Your task to perform on an android device: Go to wifi settings Image 0: 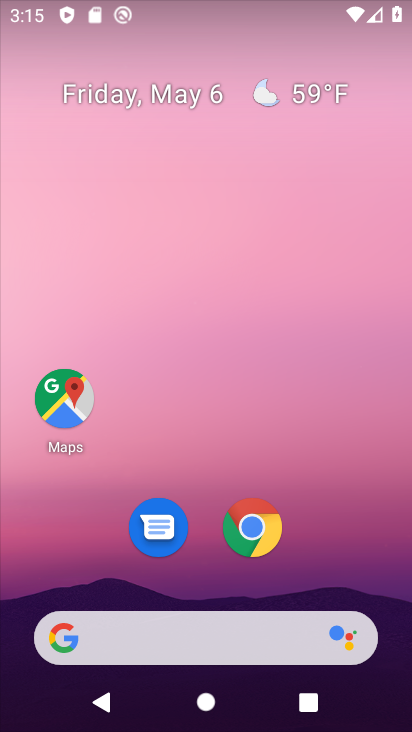
Step 0: drag from (340, 540) to (312, 127)
Your task to perform on an android device: Go to wifi settings Image 1: 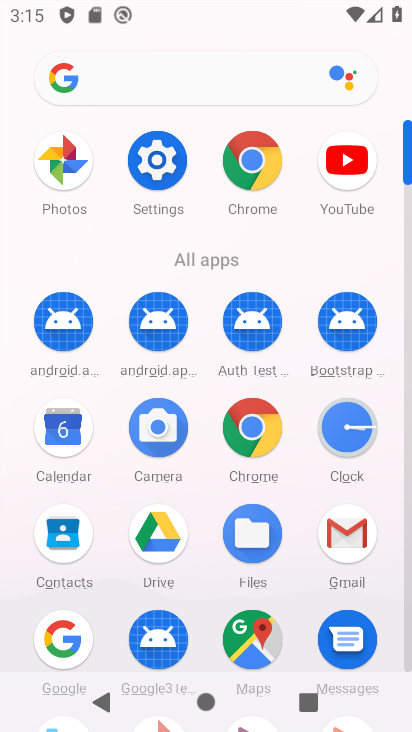
Step 1: click (160, 168)
Your task to perform on an android device: Go to wifi settings Image 2: 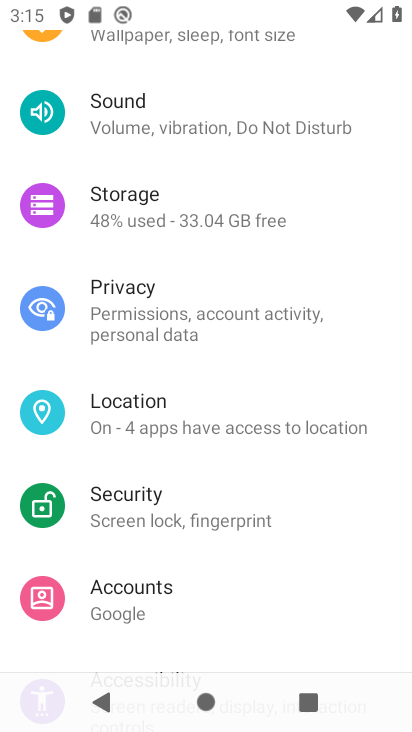
Step 2: drag from (209, 164) to (271, 612)
Your task to perform on an android device: Go to wifi settings Image 3: 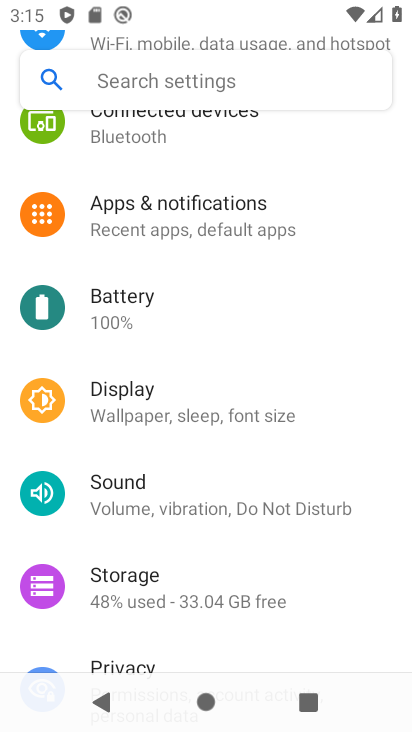
Step 3: drag from (271, 251) to (314, 676)
Your task to perform on an android device: Go to wifi settings Image 4: 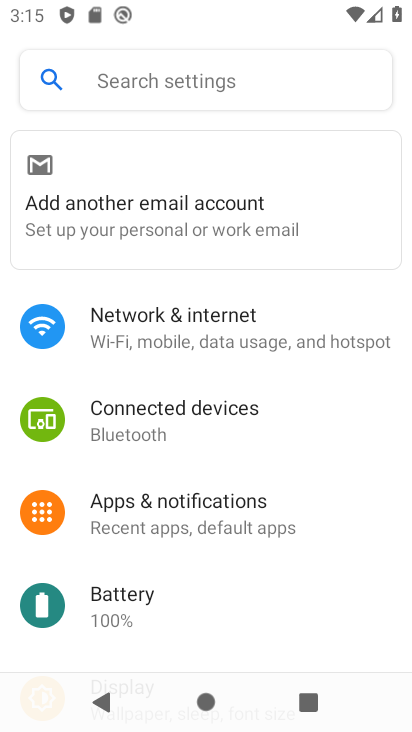
Step 4: click (210, 318)
Your task to perform on an android device: Go to wifi settings Image 5: 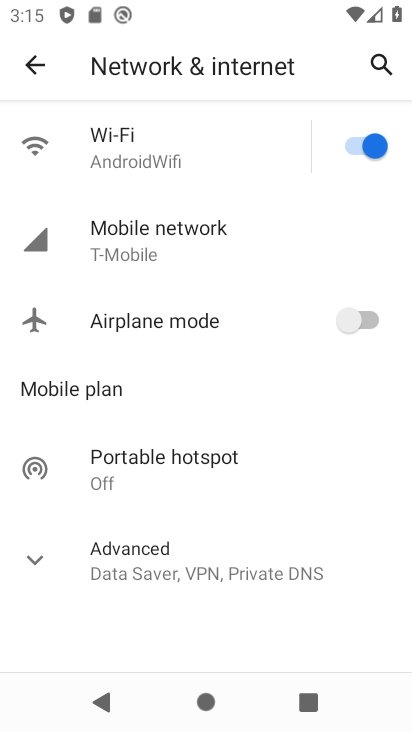
Step 5: click (215, 150)
Your task to perform on an android device: Go to wifi settings Image 6: 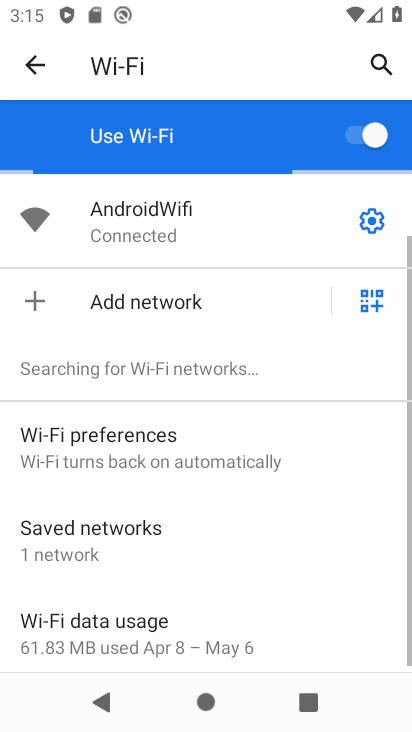
Step 6: click (367, 223)
Your task to perform on an android device: Go to wifi settings Image 7: 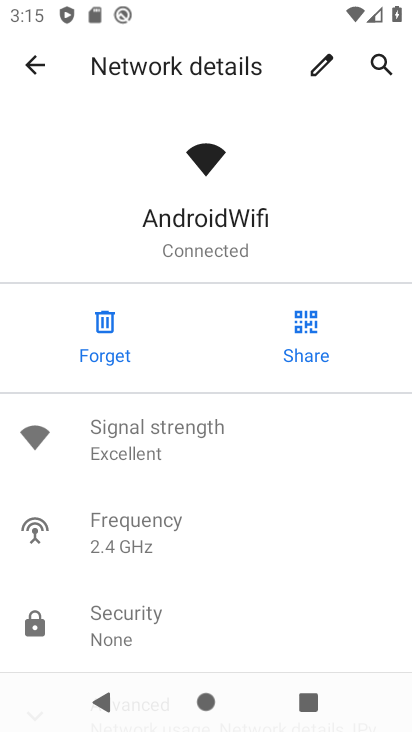
Step 7: task complete